Your task to perform on an android device: visit the assistant section in the google photos Image 0: 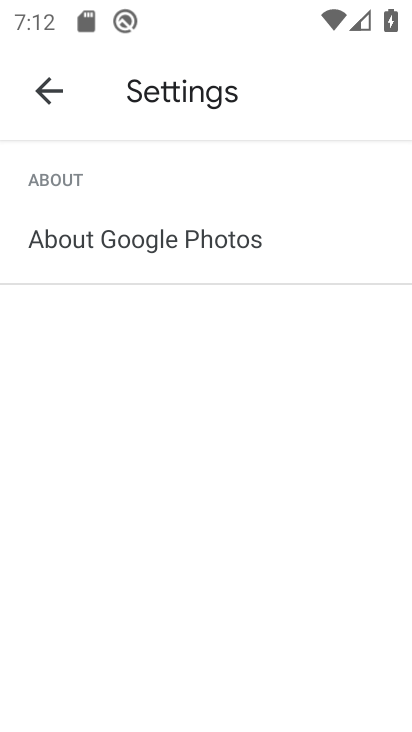
Step 0: press home button
Your task to perform on an android device: visit the assistant section in the google photos Image 1: 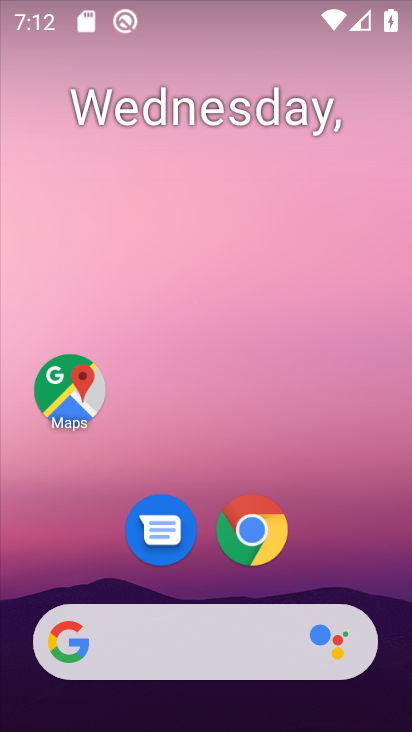
Step 1: drag from (373, 629) to (346, 60)
Your task to perform on an android device: visit the assistant section in the google photos Image 2: 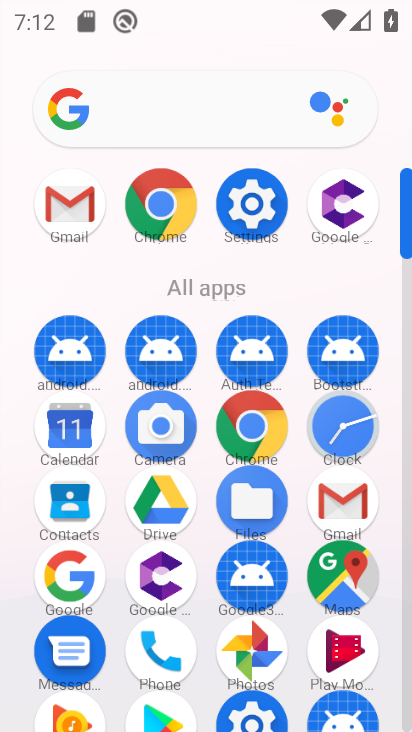
Step 2: click (255, 641)
Your task to perform on an android device: visit the assistant section in the google photos Image 3: 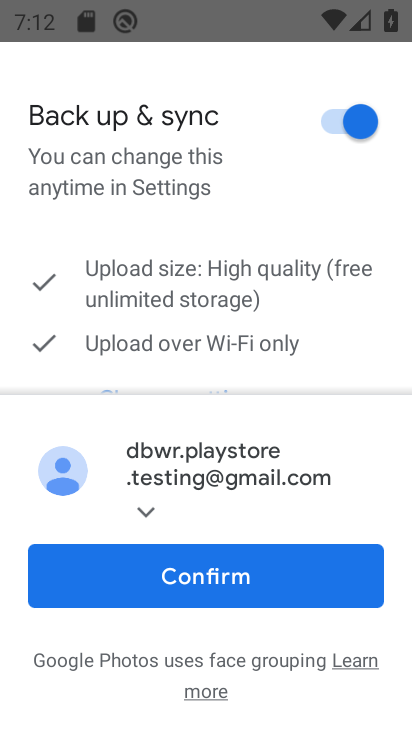
Step 3: click (251, 587)
Your task to perform on an android device: visit the assistant section in the google photos Image 4: 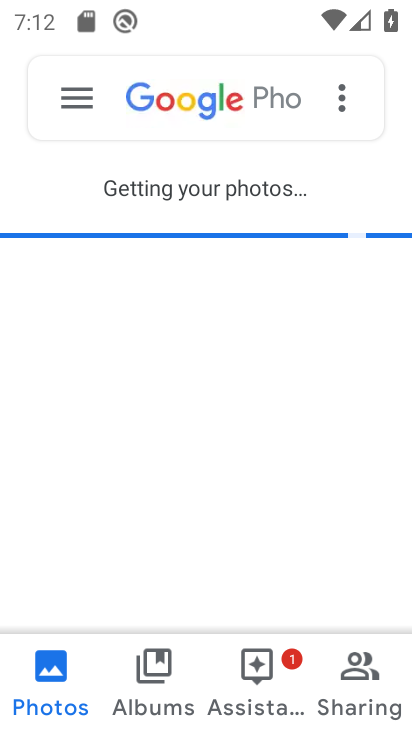
Step 4: click (252, 659)
Your task to perform on an android device: visit the assistant section in the google photos Image 5: 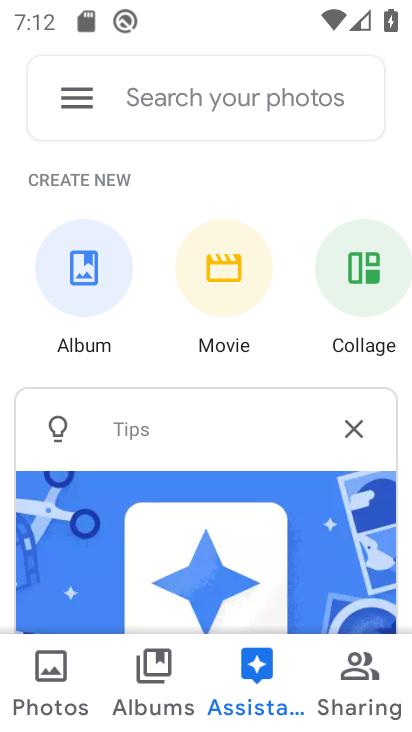
Step 5: task complete